Your task to perform on an android device: check the backup settings in the google photos Image 0: 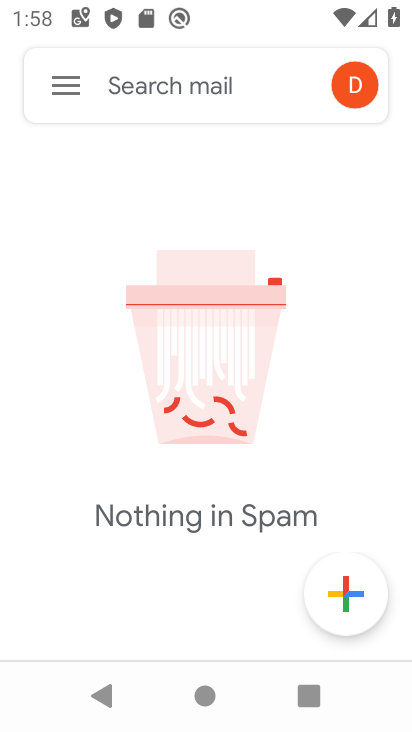
Step 0: press home button
Your task to perform on an android device: check the backup settings in the google photos Image 1: 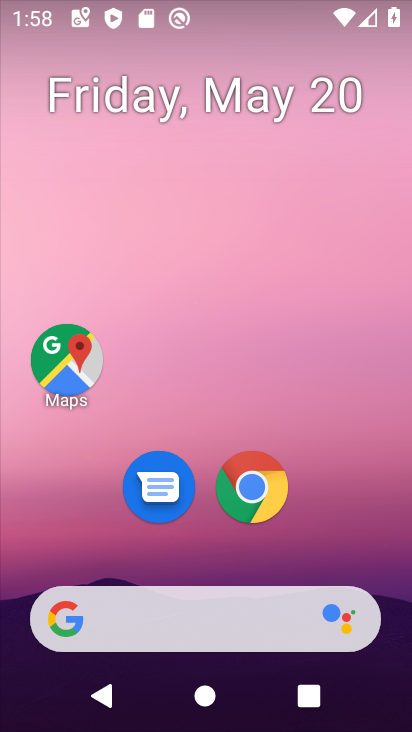
Step 1: drag from (330, 531) to (410, 82)
Your task to perform on an android device: check the backup settings in the google photos Image 2: 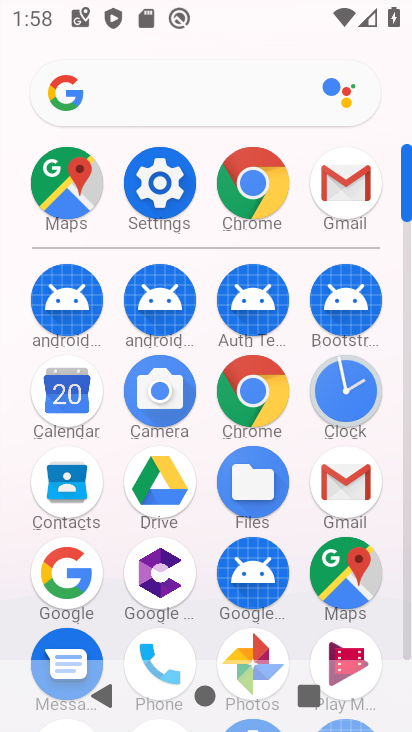
Step 2: drag from (396, 606) to (408, 304)
Your task to perform on an android device: check the backup settings in the google photos Image 3: 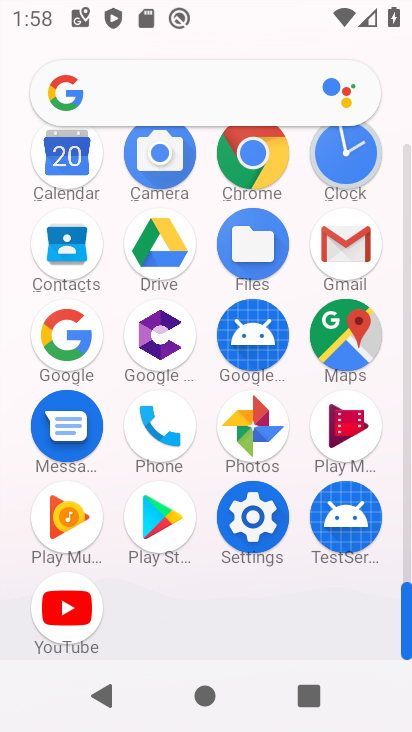
Step 3: click (268, 430)
Your task to perform on an android device: check the backup settings in the google photos Image 4: 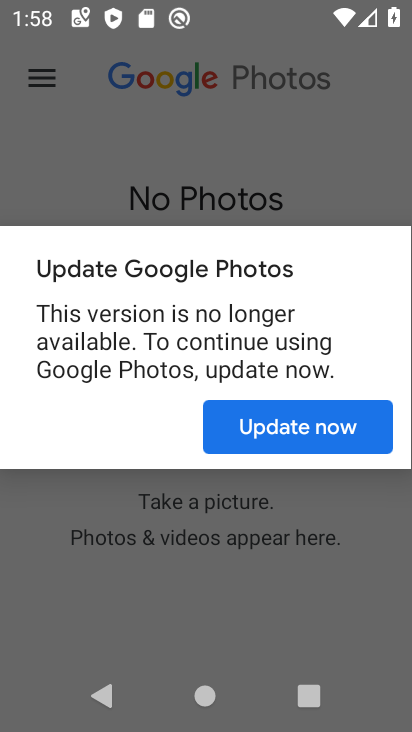
Step 4: click (265, 422)
Your task to perform on an android device: check the backup settings in the google photos Image 5: 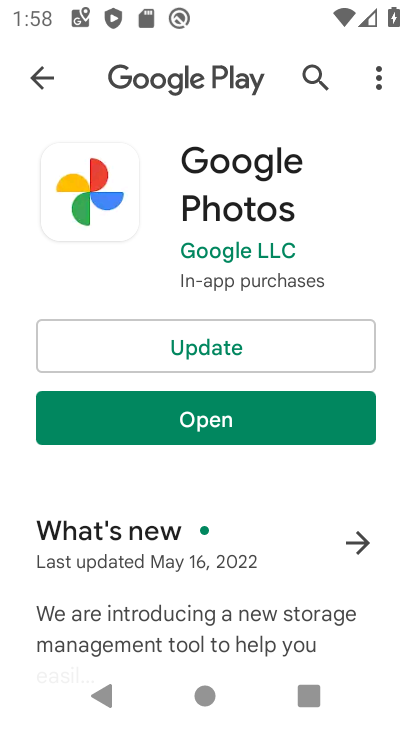
Step 5: click (226, 347)
Your task to perform on an android device: check the backup settings in the google photos Image 6: 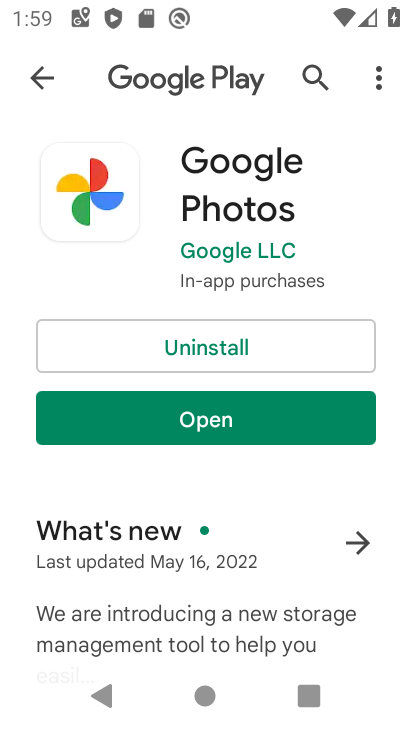
Step 6: click (176, 427)
Your task to perform on an android device: check the backup settings in the google photos Image 7: 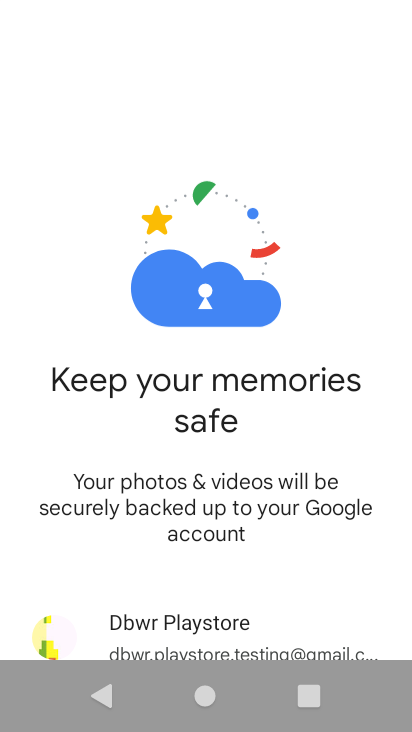
Step 7: drag from (198, 571) to (201, 350)
Your task to perform on an android device: check the backup settings in the google photos Image 8: 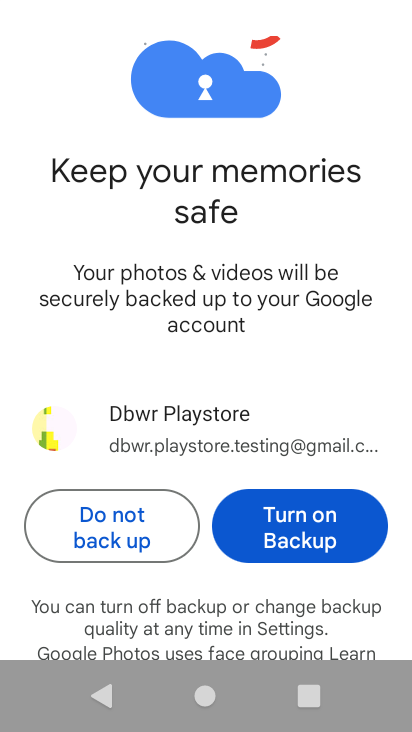
Step 8: click (252, 407)
Your task to perform on an android device: check the backup settings in the google photos Image 9: 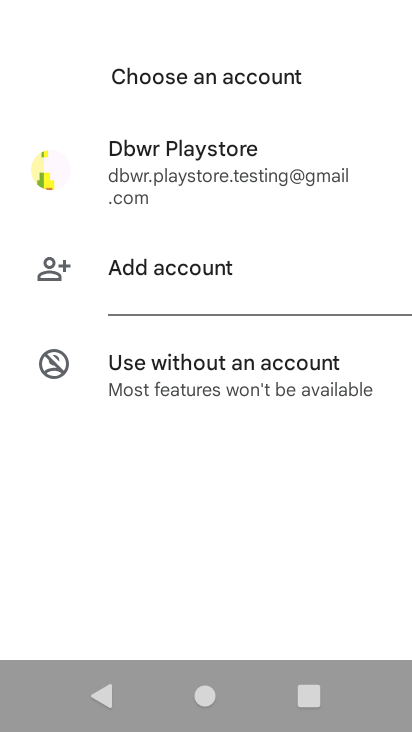
Step 9: click (151, 166)
Your task to perform on an android device: check the backup settings in the google photos Image 10: 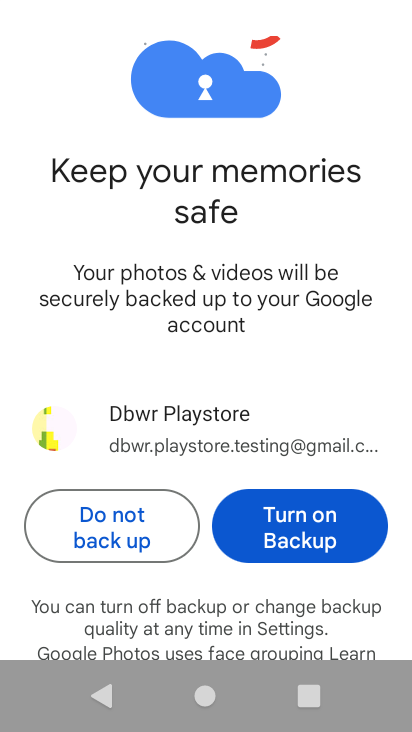
Step 10: click (319, 539)
Your task to perform on an android device: check the backup settings in the google photos Image 11: 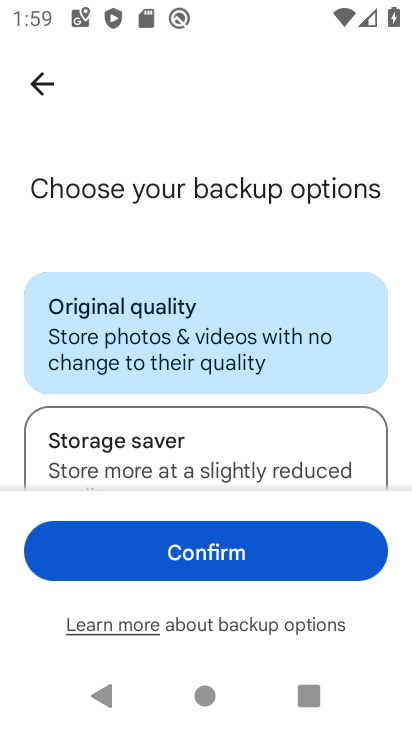
Step 11: click (262, 553)
Your task to perform on an android device: check the backup settings in the google photos Image 12: 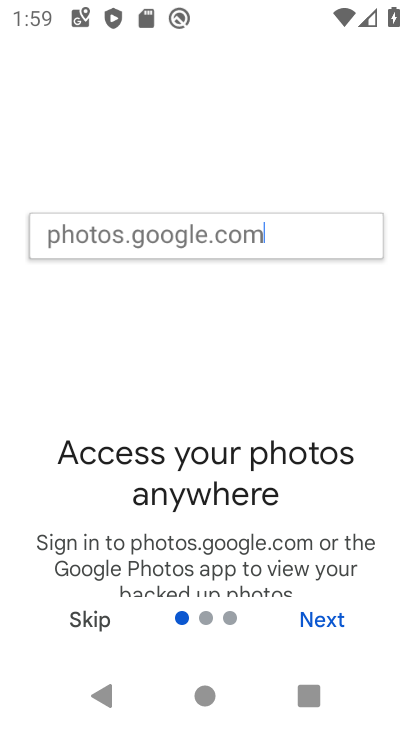
Step 12: click (321, 600)
Your task to perform on an android device: check the backup settings in the google photos Image 13: 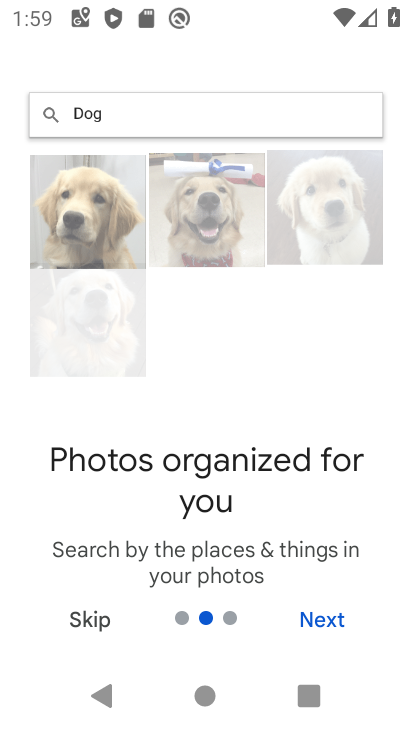
Step 13: click (321, 606)
Your task to perform on an android device: check the backup settings in the google photos Image 14: 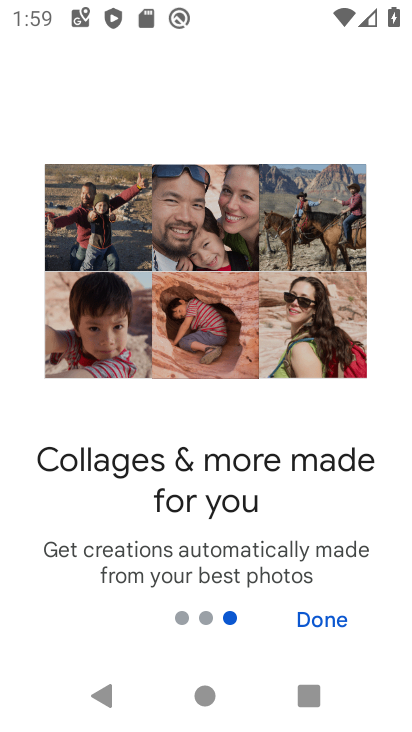
Step 14: click (321, 606)
Your task to perform on an android device: check the backup settings in the google photos Image 15: 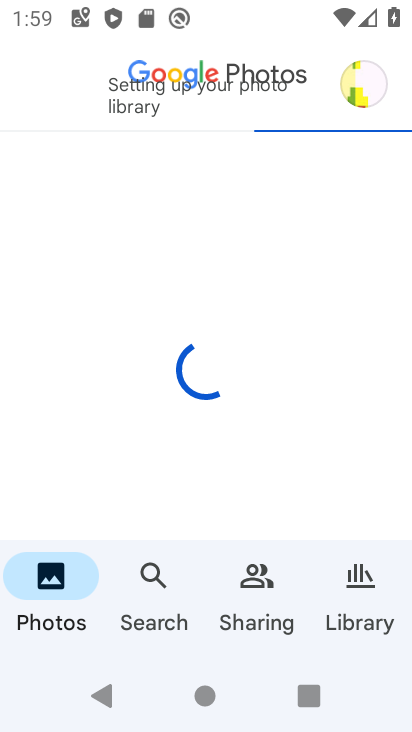
Step 15: click (367, 86)
Your task to perform on an android device: check the backup settings in the google photos Image 16: 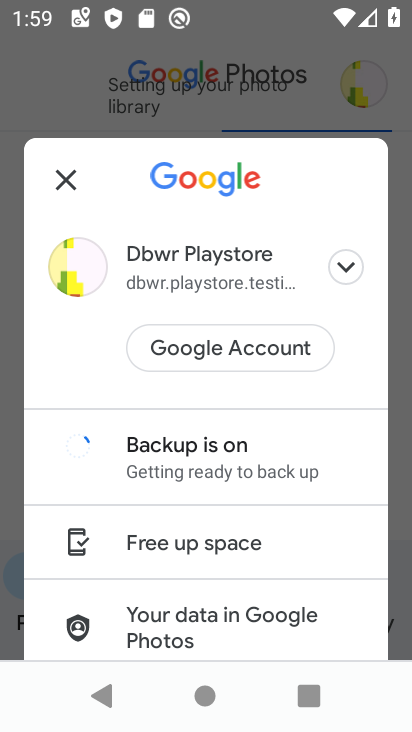
Step 16: click (174, 436)
Your task to perform on an android device: check the backup settings in the google photos Image 17: 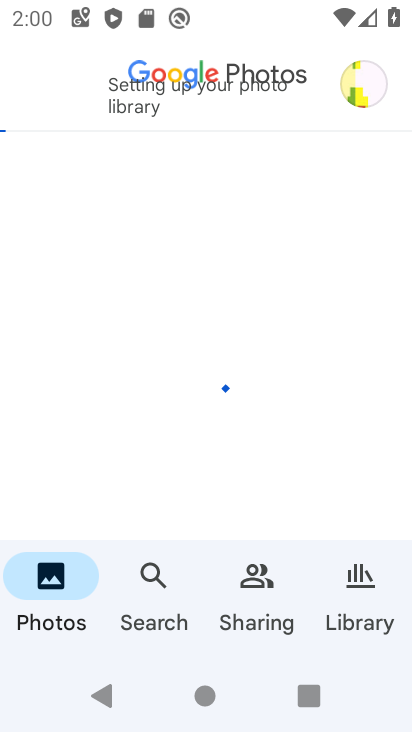
Step 17: task complete